Your task to perform on an android device: Open calendar and show me the first week of next month Image 0: 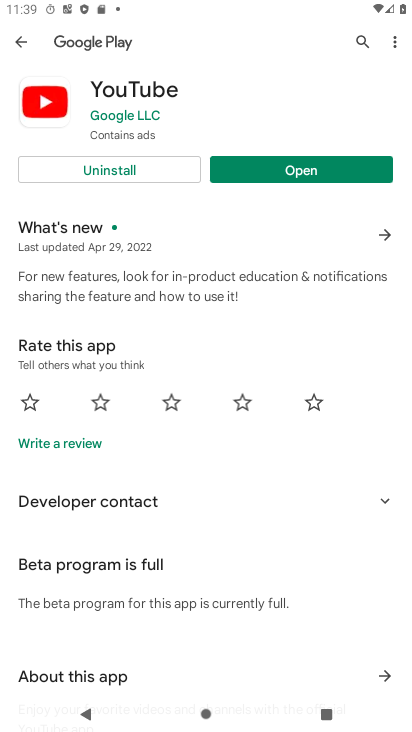
Step 0: press home button
Your task to perform on an android device: Open calendar and show me the first week of next month Image 1: 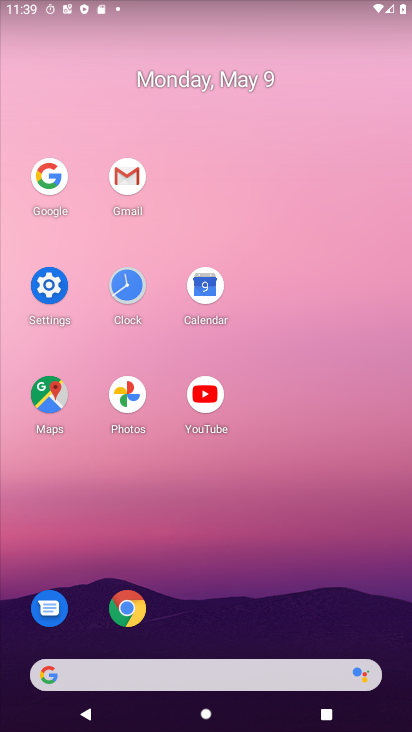
Step 1: click (199, 297)
Your task to perform on an android device: Open calendar and show me the first week of next month Image 2: 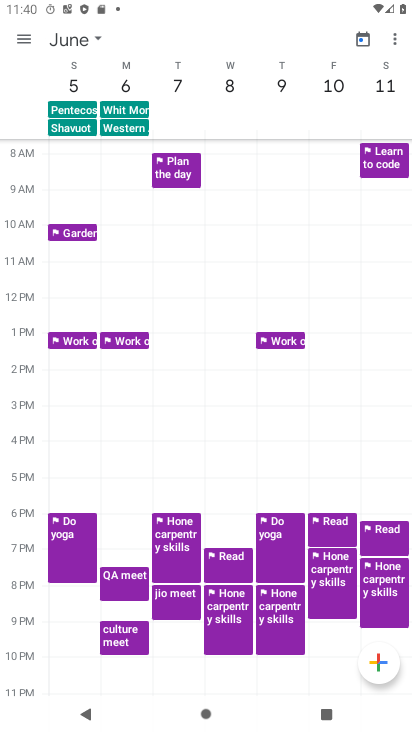
Step 2: task complete